Your task to perform on an android device: Turn on the flashlight Image 0: 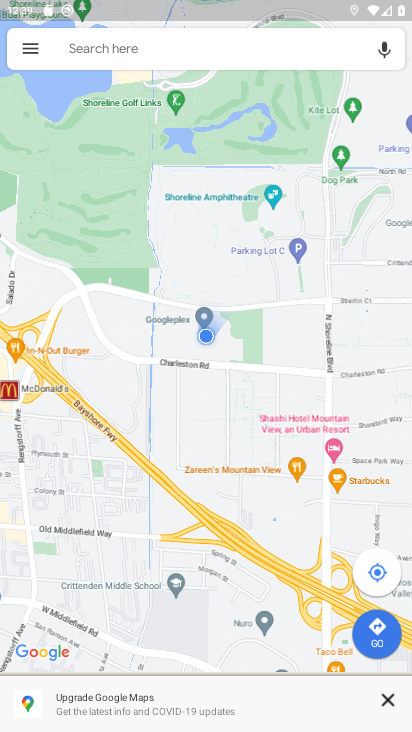
Step 0: press home button
Your task to perform on an android device: Turn on the flashlight Image 1: 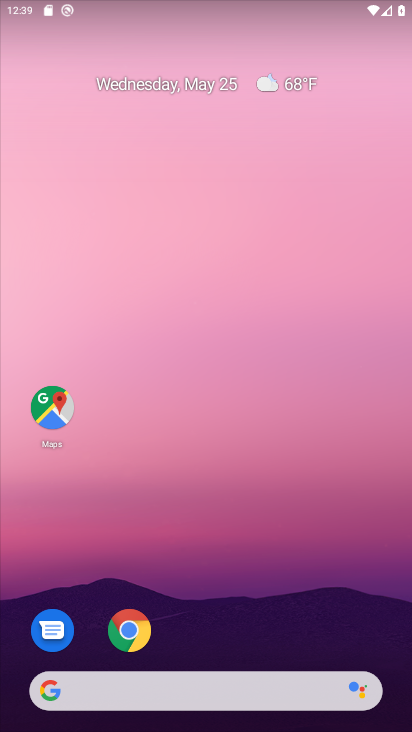
Step 1: drag from (219, 641) to (217, 178)
Your task to perform on an android device: Turn on the flashlight Image 2: 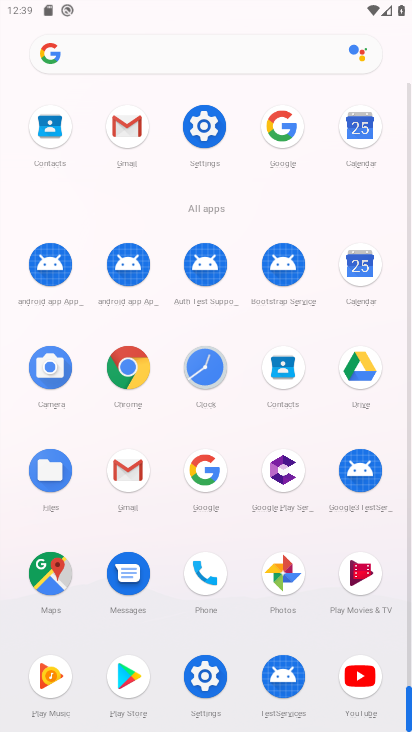
Step 2: click (206, 120)
Your task to perform on an android device: Turn on the flashlight Image 3: 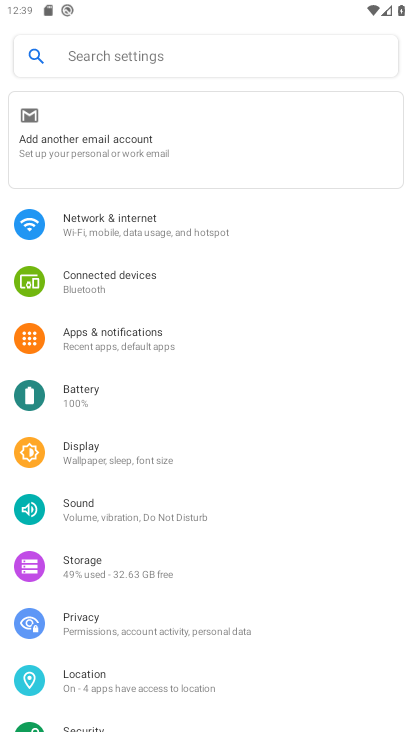
Step 3: task complete